Your task to perform on an android device: Set the phone to "Do not disturb". Image 0: 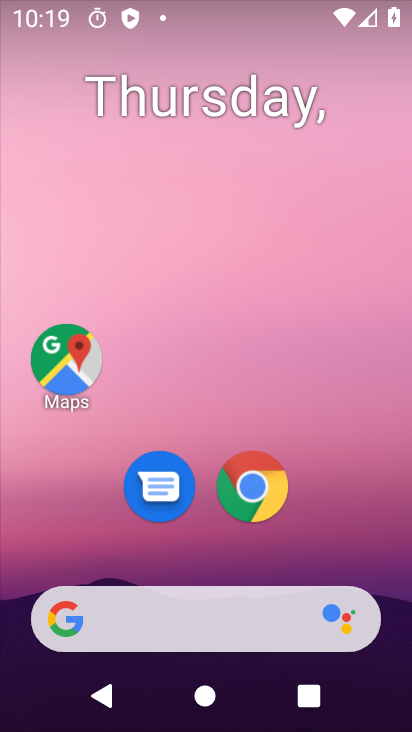
Step 0: drag from (198, 10) to (197, 506)
Your task to perform on an android device: Set the phone to "Do not disturb". Image 1: 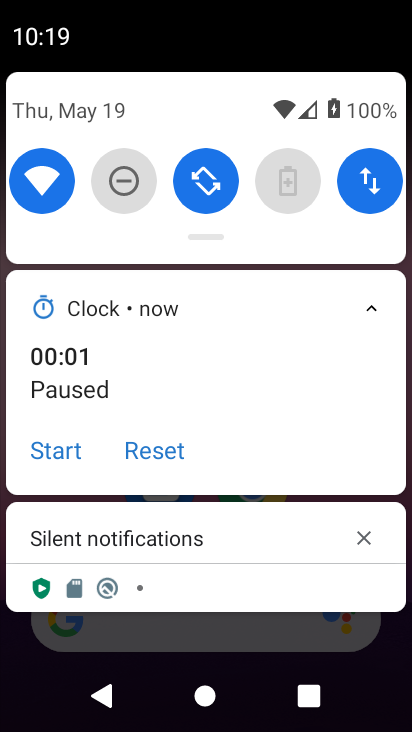
Step 1: click (128, 193)
Your task to perform on an android device: Set the phone to "Do not disturb". Image 2: 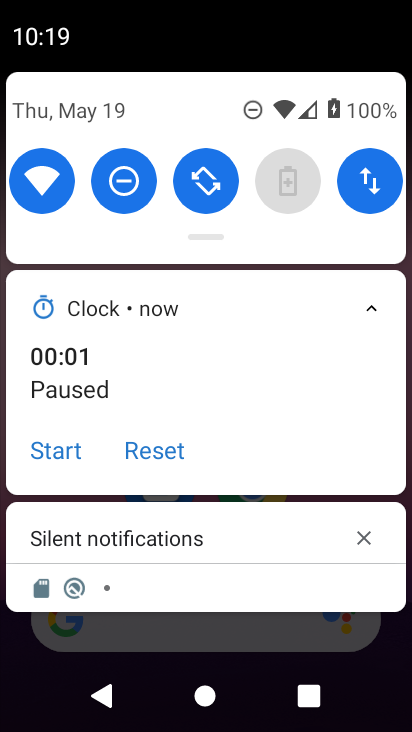
Step 2: task complete